Your task to perform on an android device: clear history in the chrome app Image 0: 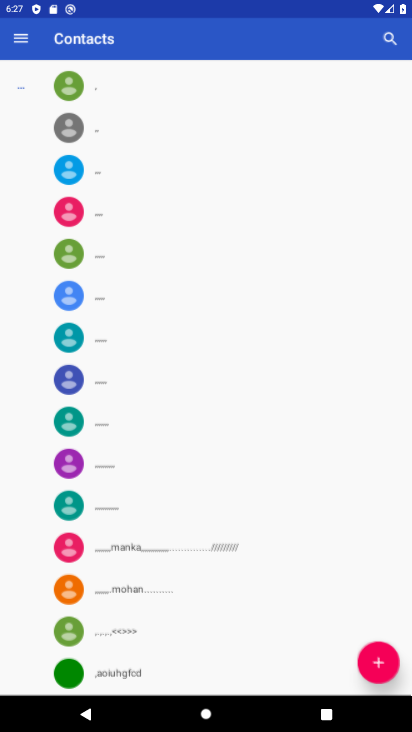
Step 0: press home button
Your task to perform on an android device: clear history in the chrome app Image 1: 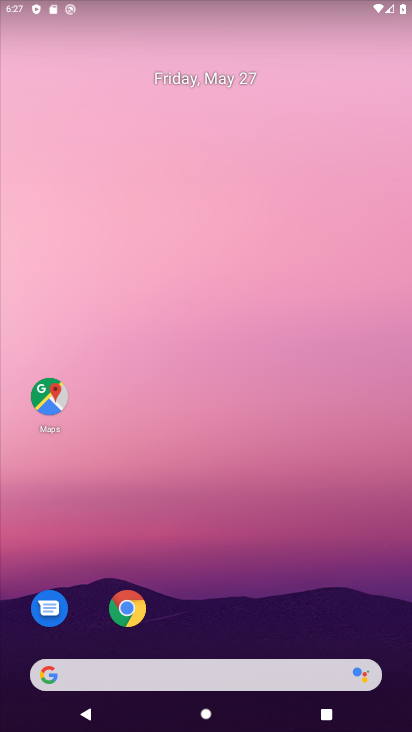
Step 1: click (125, 604)
Your task to perform on an android device: clear history in the chrome app Image 2: 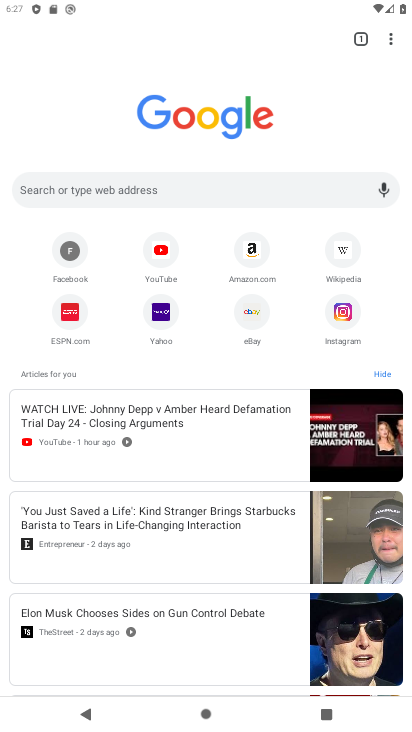
Step 2: click (390, 36)
Your task to perform on an android device: clear history in the chrome app Image 3: 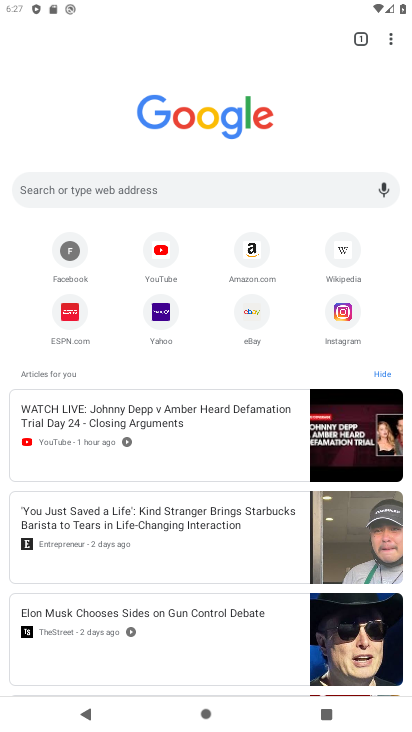
Step 3: click (392, 36)
Your task to perform on an android device: clear history in the chrome app Image 4: 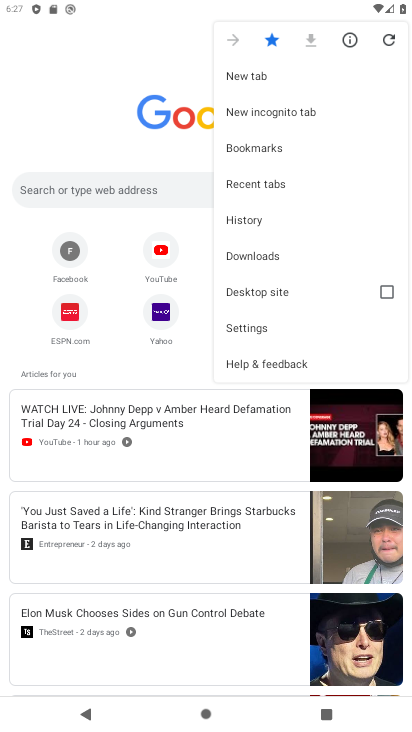
Step 4: click (269, 217)
Your task to perform on an android device: clear history in the chrome app Image 5: 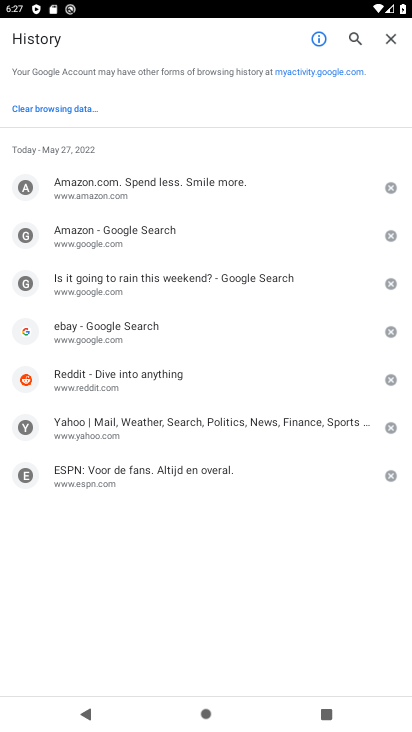
Step 5: click (49, 106)
Your task to perform on an android device: clear history in the chrome app Image 6: 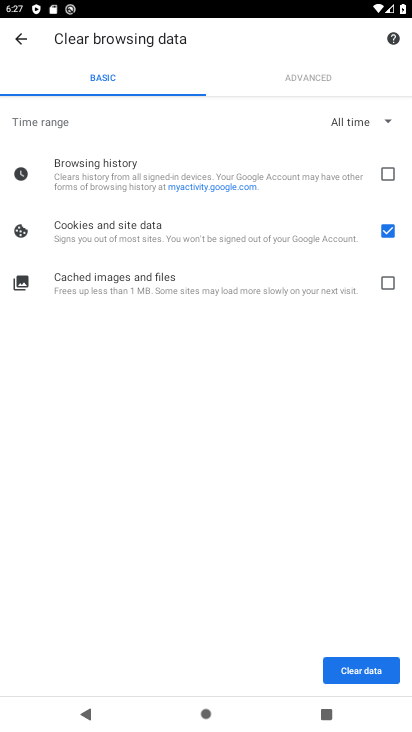
Step 6: click (392, 171)
Your task to perform on an android device: clear history in the chrome app Image 7: 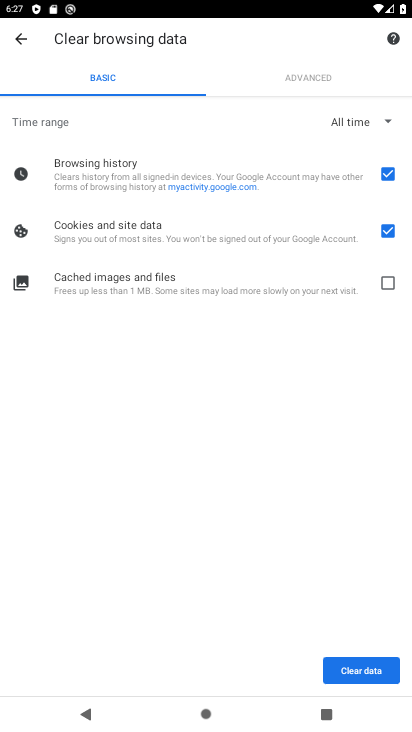
Step 7: click (387, 277)
Your task to perform on an android device: clear history in the chrome app Image 8: 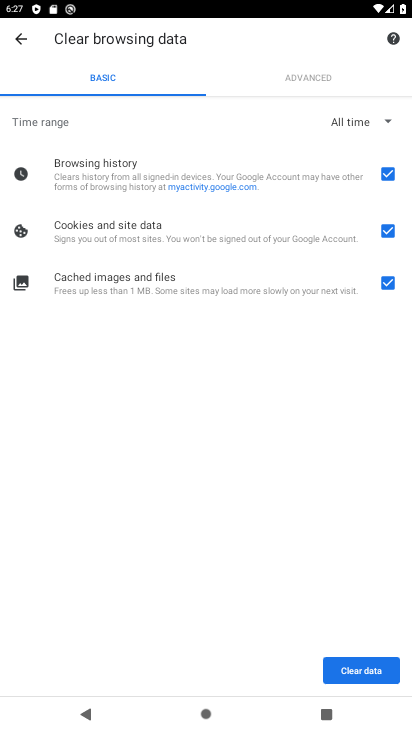
Step 8: click (358, 668)
Your task to perform on an android device: clear history in the chrome app Image 9: 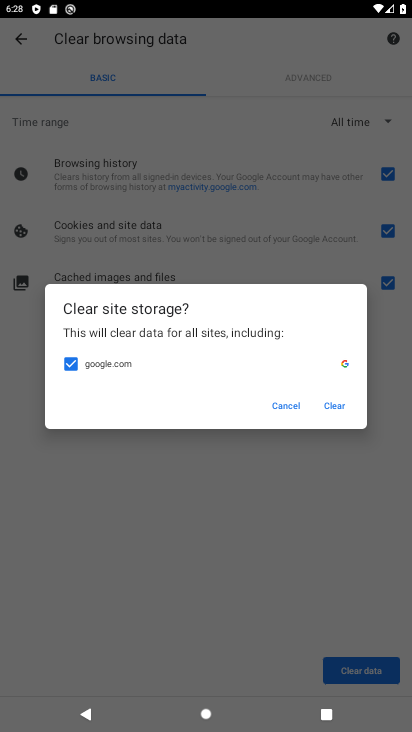
Step 9: click (331, 404)
Your task to perform on an android device: clear history in the chrome app Image 10: 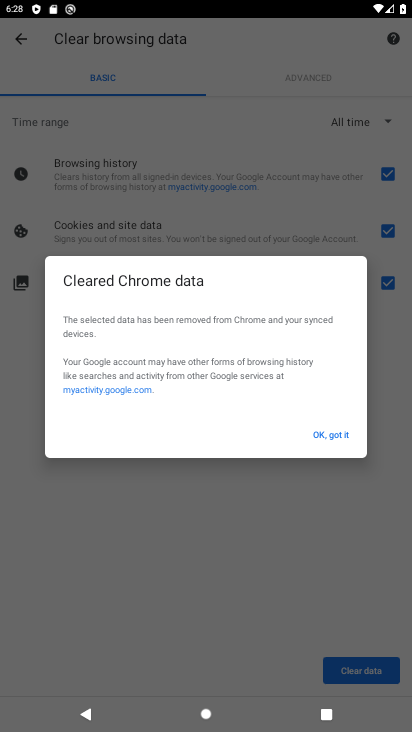
Step 10: click (325, 435)
Your task to perform on an android device: clear history in the chrome app Image 11: 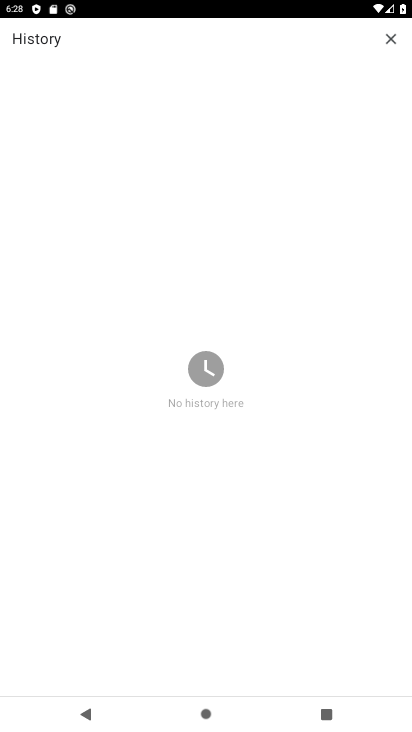
Step 11: task complete